Your task to perform on an android device: What's on my calendar today? Image 0: 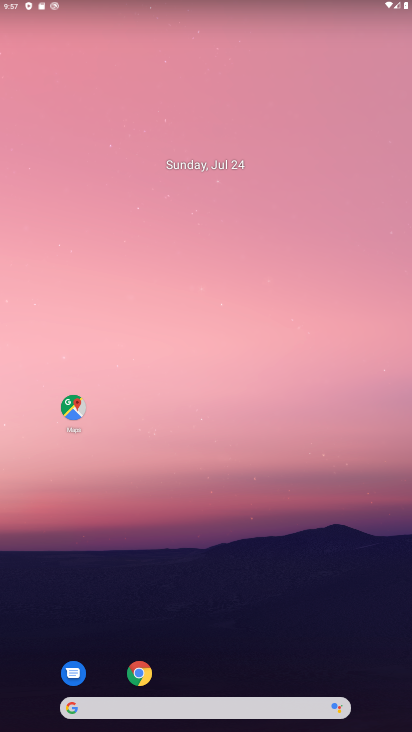
Step 0: drag from (215, 652) to (259, 4)
Your task to perform on an android device: What's on my calendar today? Image 1: 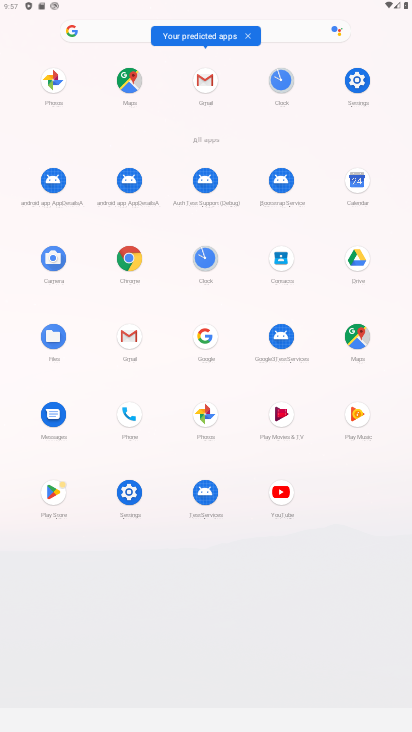
Step 1: click (362, 185)
Your task to perform on an android device: What's on my calendar today? Image 2: 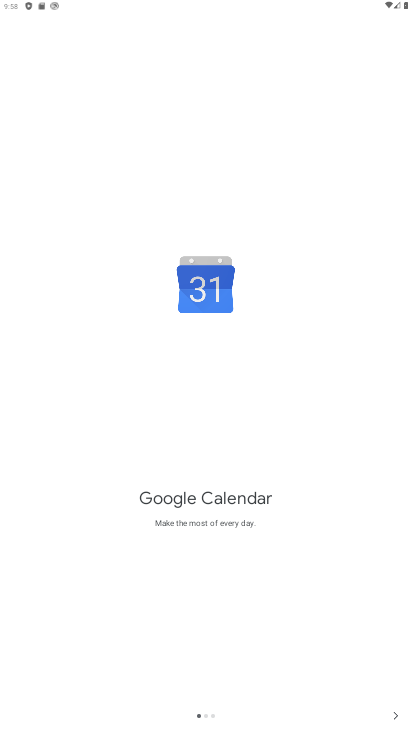
Step 2: click (393, 722)
Your task to perform on an android device: What's on my calendar today? Image 3: 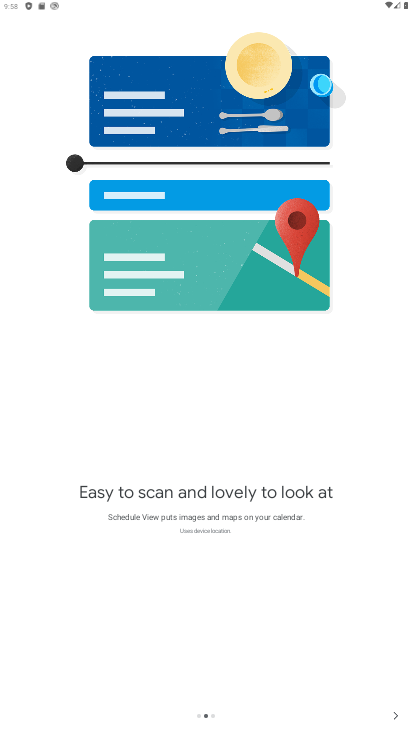
Step 3: click (393, 722)
Your task to perform on an android device: What's on my calendar today? Image 4: 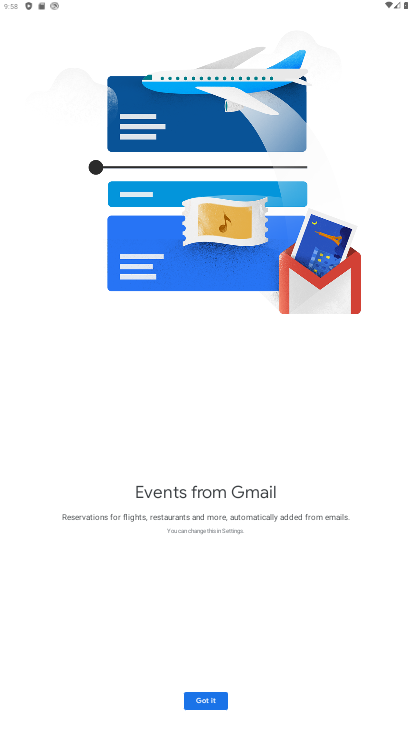
Step 4: click (196, 700)
Your task to perform on an android device: What's on my calendar today? Image 5: 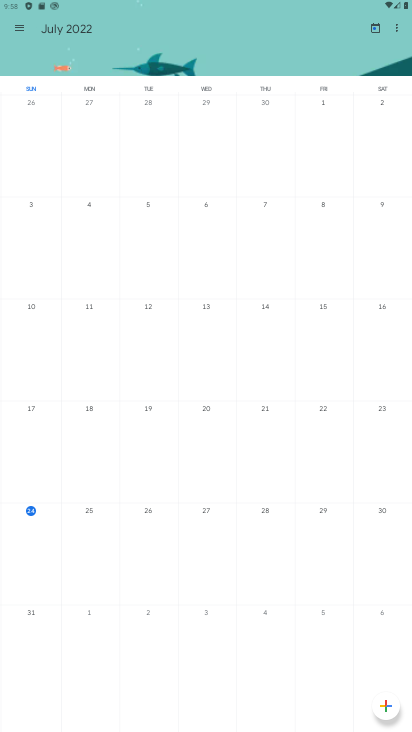
Step 5: click (21, 519)
Your task to perform on an android device: What's on my calendar today? Image 6: 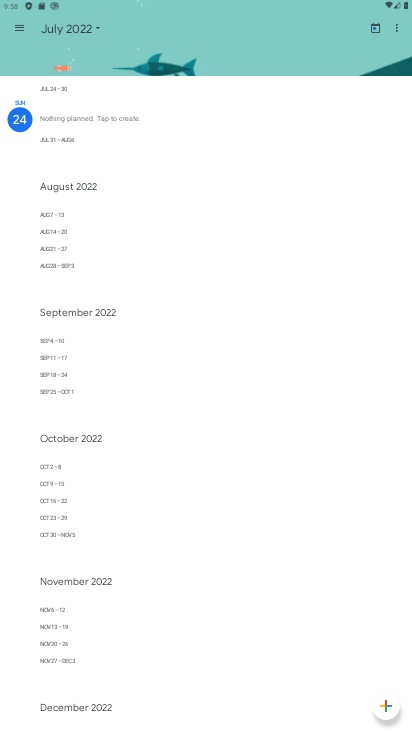
Step 6: task complete